Your task to perform on an android device: empty trash in google photos Image 0: 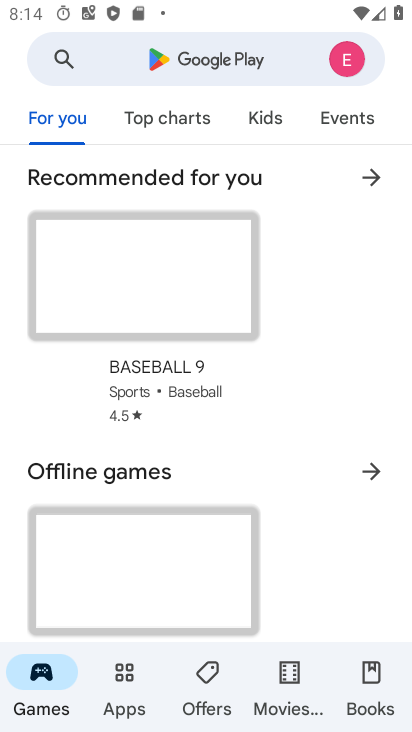
Step 0: press home button
Your task to perform on an android device: empty trash in google photos Image 1: 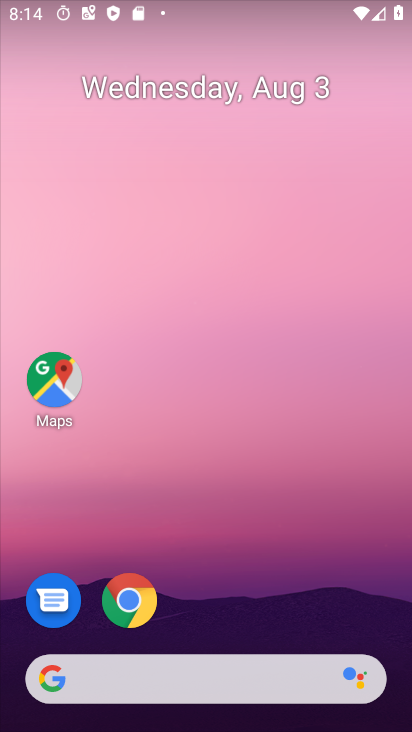
Step 1: drag from (213, 596) to (185, 0)
Your task to perform on an android device: empty trash in google photos Image 2: 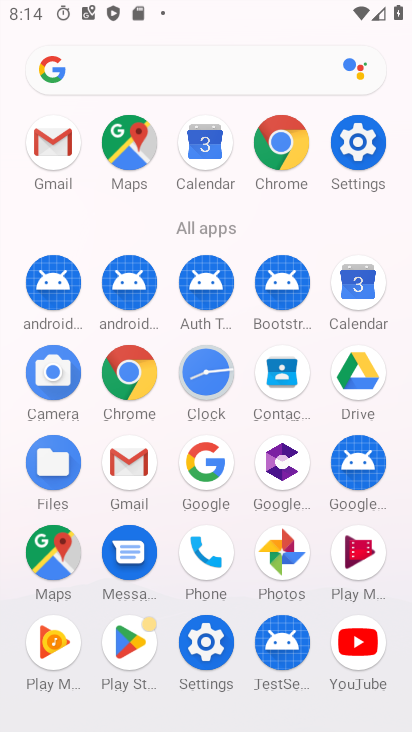
Step 2: click (282, 569)
Your task to perform on an android device: empty trash in google photos Image 3: 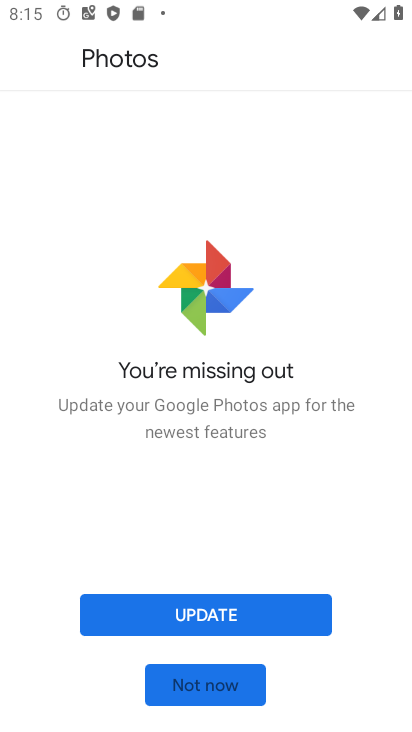
Step 3: click (245, 682)
Your task to perform on an android device: empty trash in google photos Image 4: 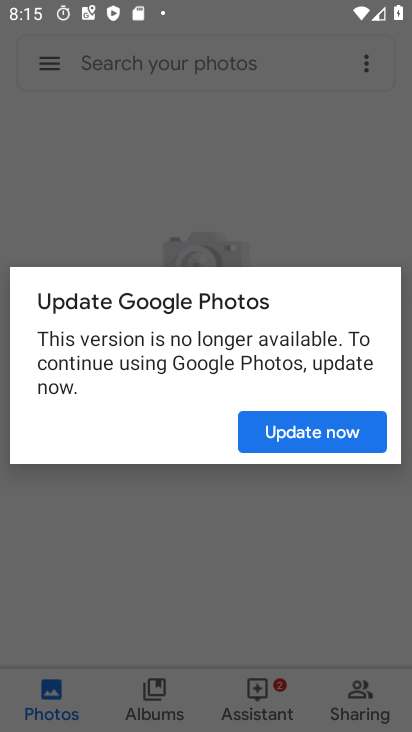
Step 4: click (294, 430)
Your task to perform on an android device: empty trash in google photos Image 5: 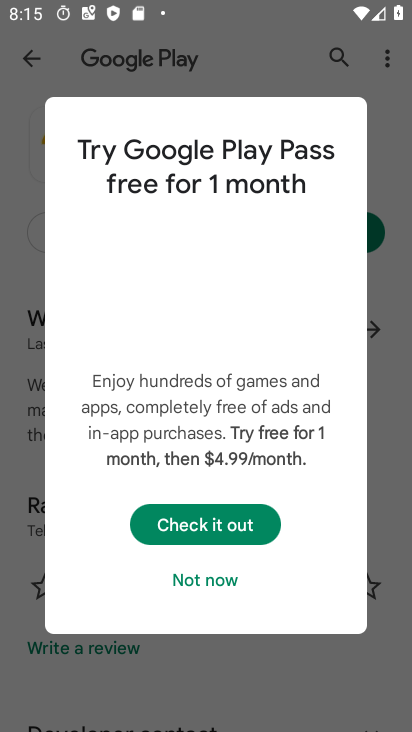
Step 5: click (203, 580)
Your task to perform on an android device: empty trash in google photos Image 6: 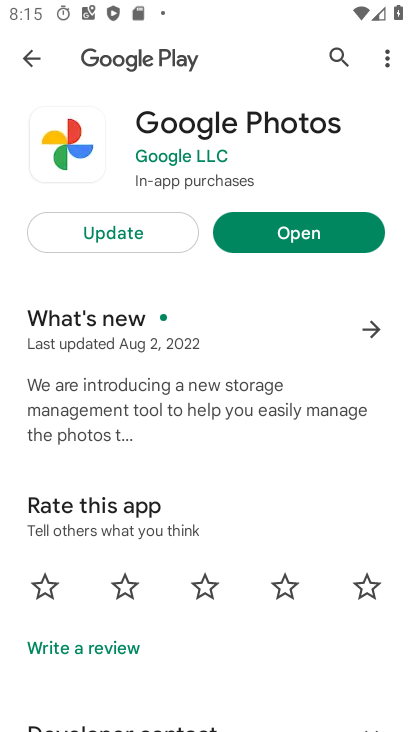
Step 6: click (300, 237)
Your task to perform on an android device: empty trash in google photos Image 7: 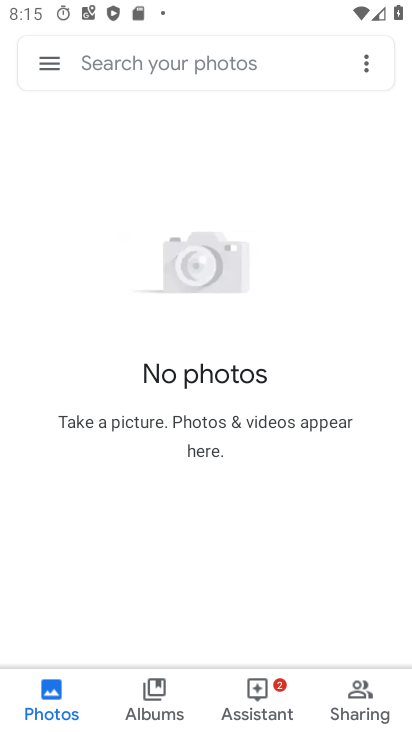
Step 7: click (31, 57)
Your task to perform on an android device: empty trash in google photos Image 8: 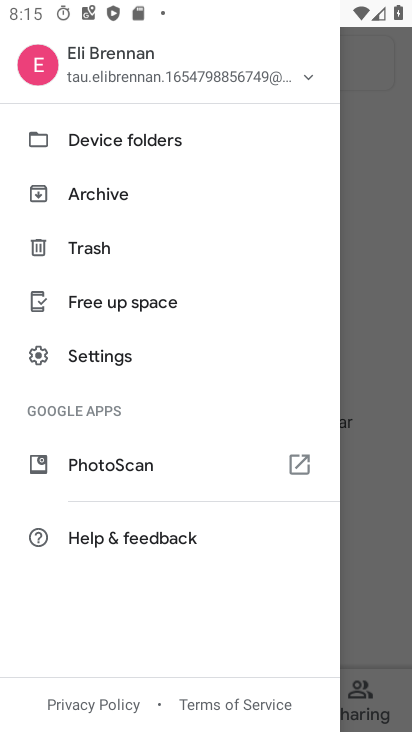
Step 8: click (100, 254)
Your task to perform on an android device: empty trash in google photos Image 9: 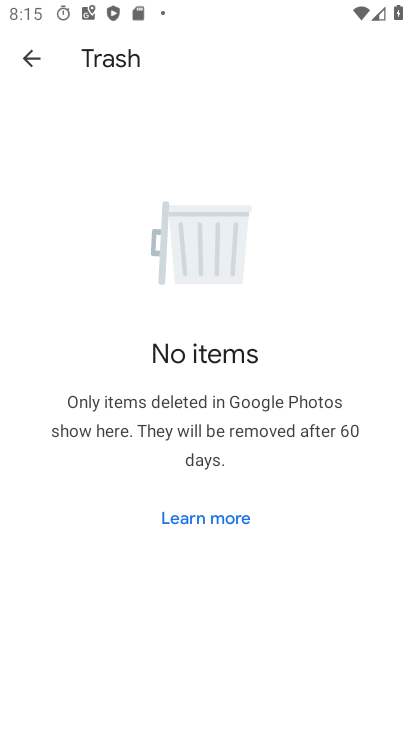
Step 9: task complete